Your task to perform on an android device: read, delete, or share a saved page in the chrome app Image 0: 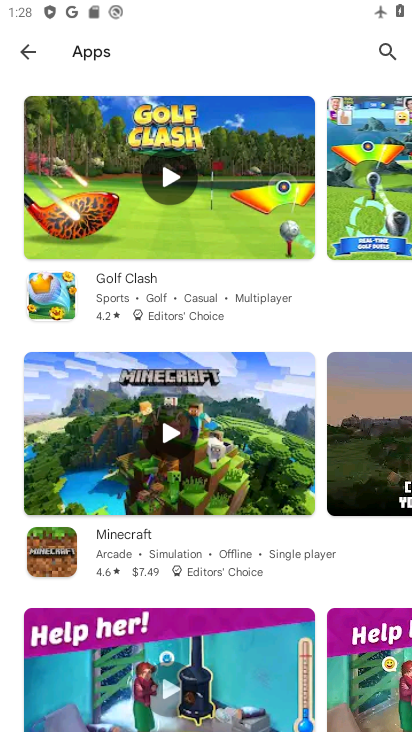
Step 0: press home button
Your task to perform on an android device: read, delete, or share a saved page in the chrome app Image 1: 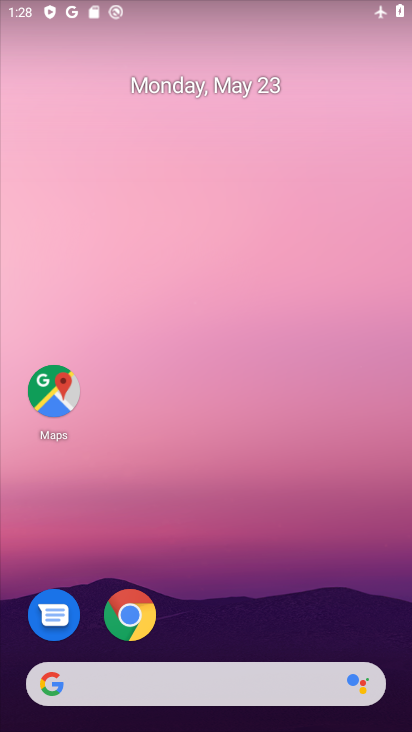
Step 1: drag from (228, 657) to (348, 12)
Your task to perform on an android device: read, delete, or share a saved page in the chrome app Image 2: 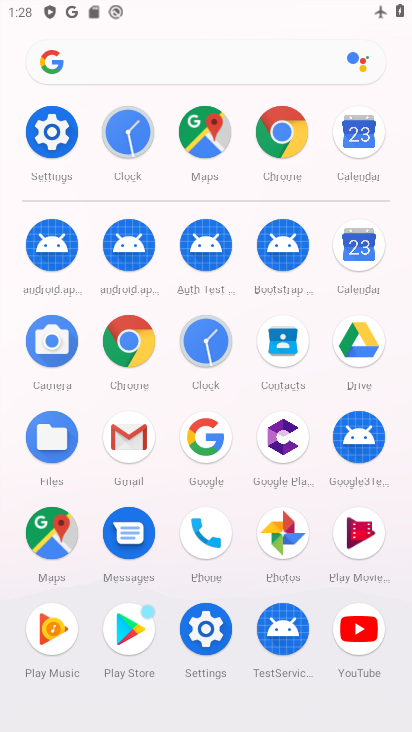
Step 2: click (125, 338)
Your task to perform on an android device: read, delete, or share a saved page in the chrome app Image 3: 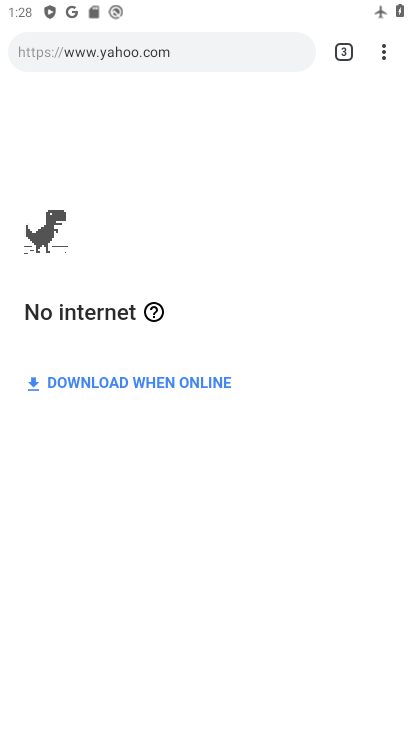
Step 3: click (381, 51)
Your task to perform on an android device: read, delete, or share a saved page in the chrome app Image 4: 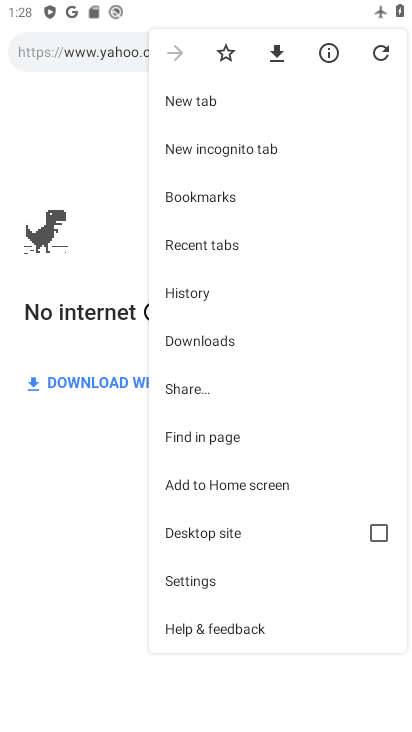
Step 4: click (185, 331)
Your task to perform on an android device: read, delete, or share a saved page in the chrome app Image 5: 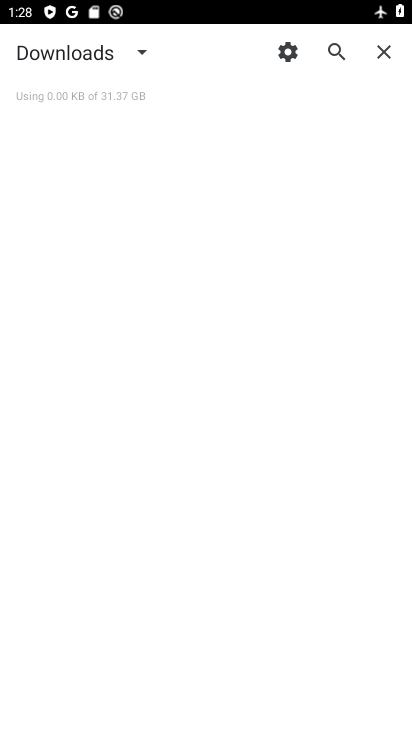
Step 5: task complete